Your task to perform on an android device: Search for Mexican restaurants on Maps Image 0: 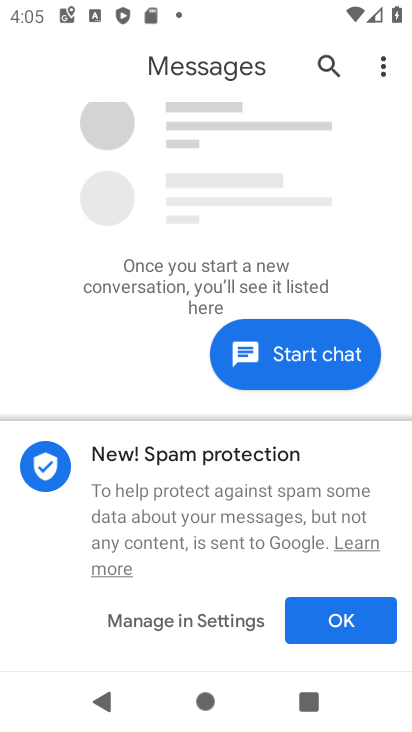
Step 0: press home button
Your task to perform on an android device: Search for Mexican restaurants on Maps Image 1: 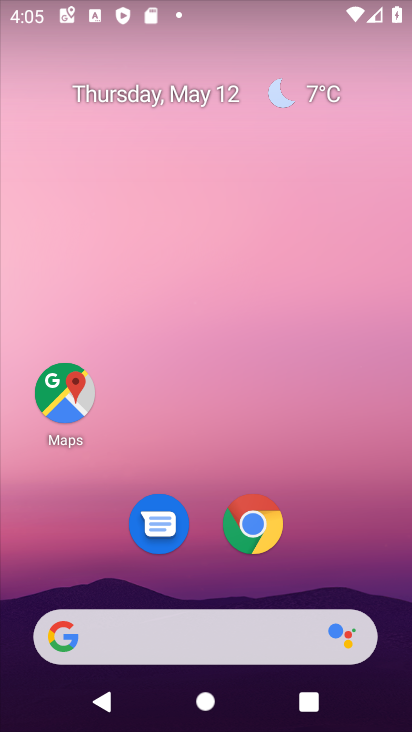
Step 1: click (63, 390)
Your task to perform on an android device: Search for Mexican restaurants on Maps Image 2: 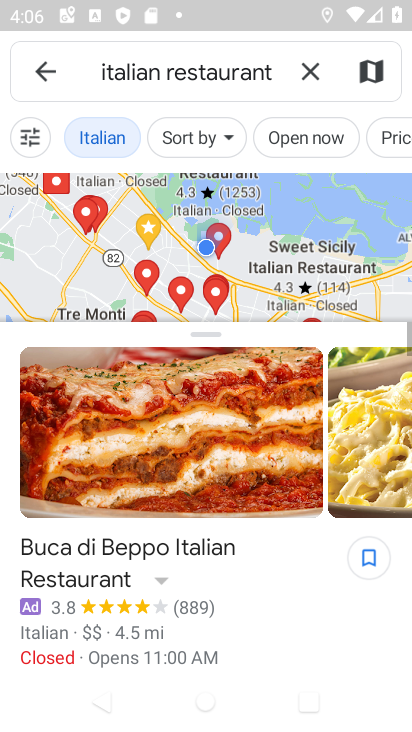
Step 2: click (305, 68)
Your task to perform on an android device: Search for Mexican restaurants on Maps Image 3: 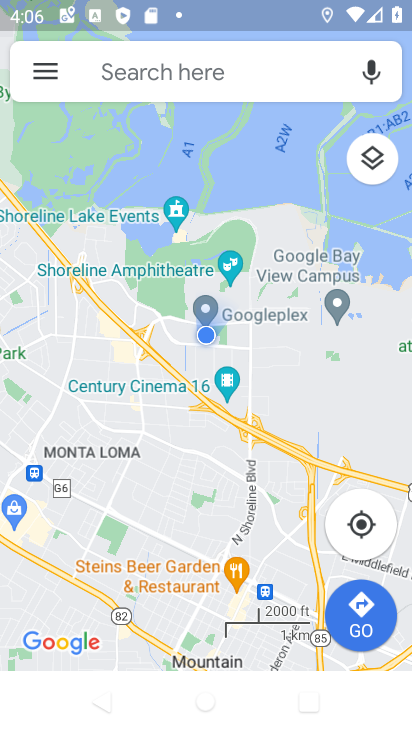
Step 3: click (189, 68)
Your task to perform on an android device: Search for Mexican restaurants on Maps Image 4: 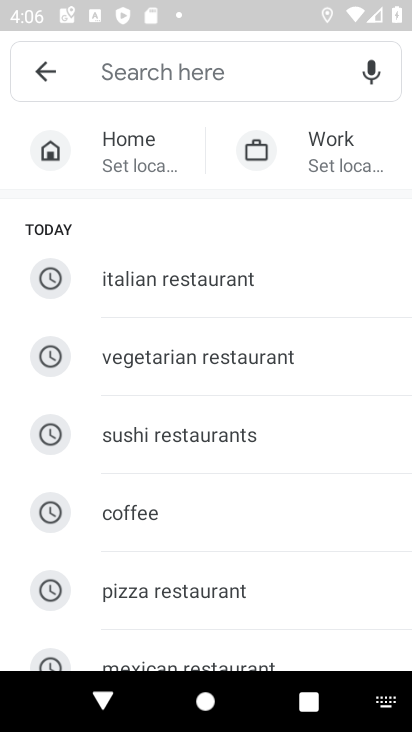
Step 4: drag from (174, 501) to (186, 367)
Your task to perform on an android device: Search for Mexican restaurants on Maps Image 5: 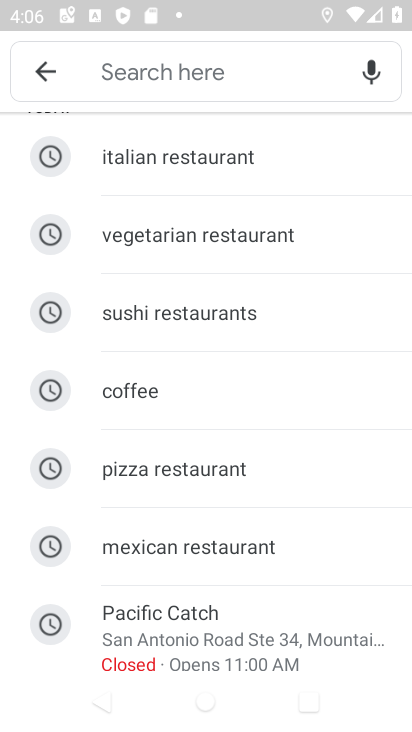
Step 5: click (194, 535)
Your task to perform on an android device: Search for Mexican restaurants on Maps Image 6: 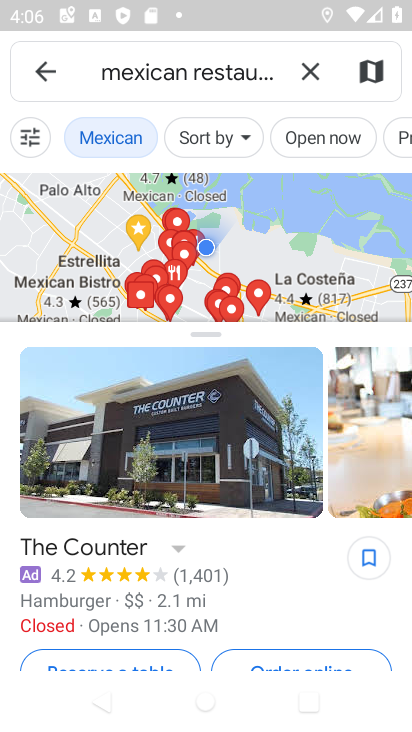
Step 6: task complete